Your task to perform on an android device: see sites visited before in the chrome app Image 0: 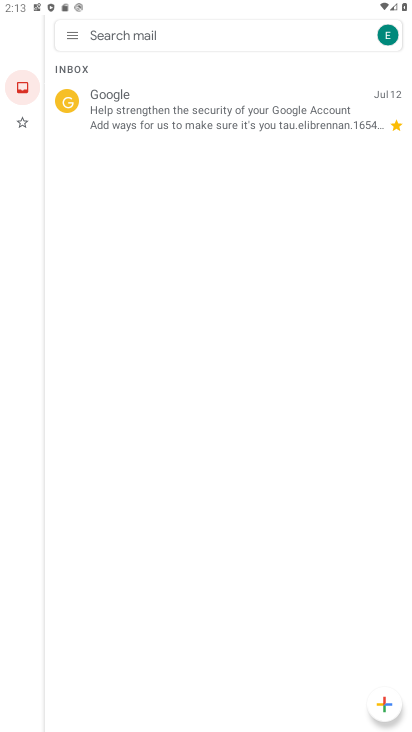
Step 0: press home button
Your task to perform on an android device: see sites visited before in the chrome app Image 1: 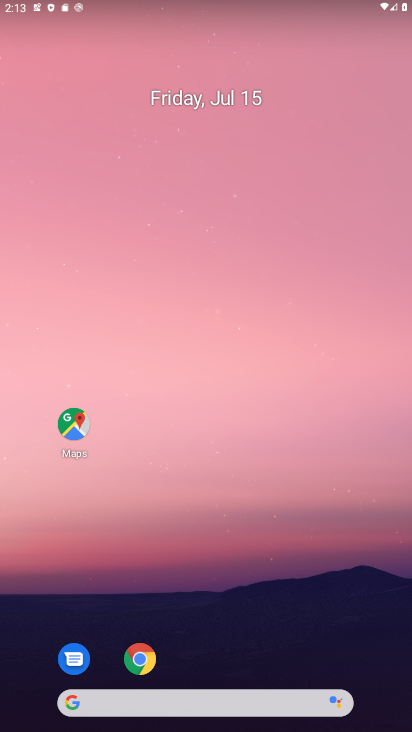
Step 1: drag from (256, 606) to (258, 152)
Your task to perform on an android device: see sites visited before in the chrome app Image 2: 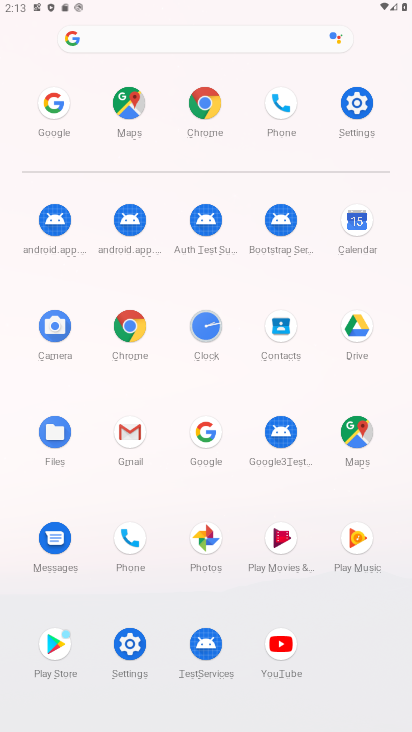
Step 2: click (216, 102)
Your task to perform on an android device: see sites visited before in the chrome app Image 3: 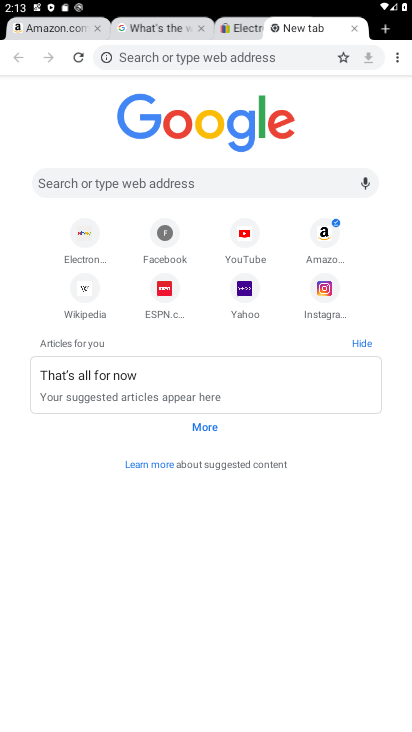
Step 3: click (396, 56)
Your task to perform on an android device: see sites visited before in the chrome app Image 4: 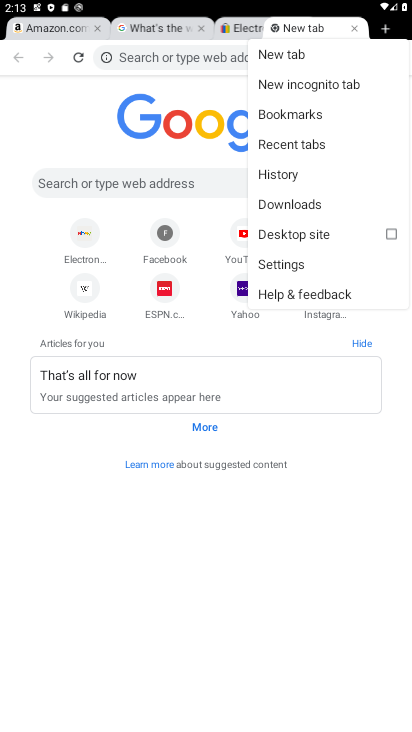
Step 4: click (297, 169)
Your task to perform on an android device: see sites visited before in the chrome app Image 5: 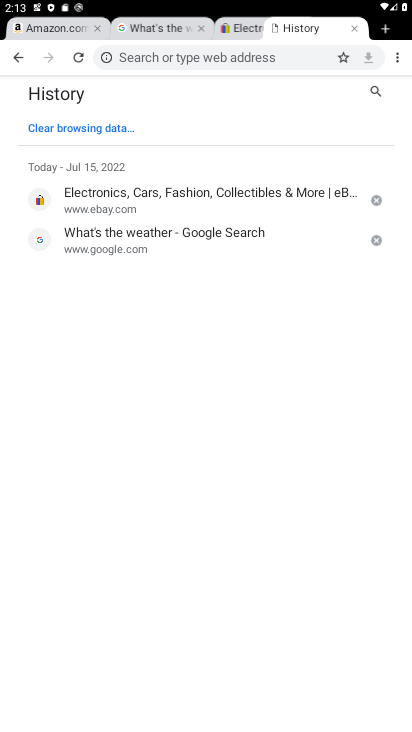
Step 5: task complete